Your task to perform on an android device: Open settings Image 0: 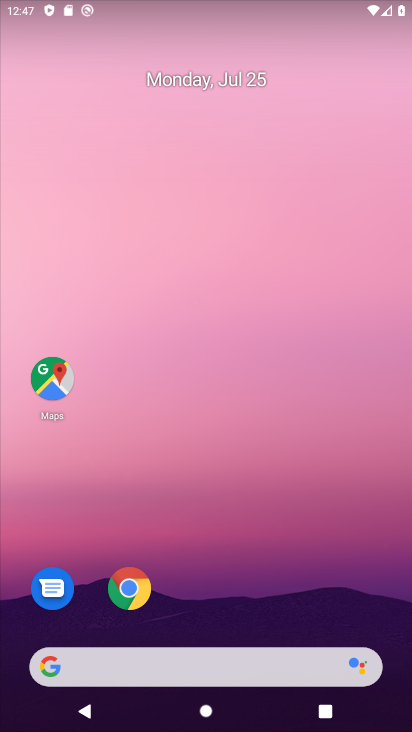
Step 0: drag from (246, 627) to (195, 282)
Your task to perform on an android device: Open settings Image 1: 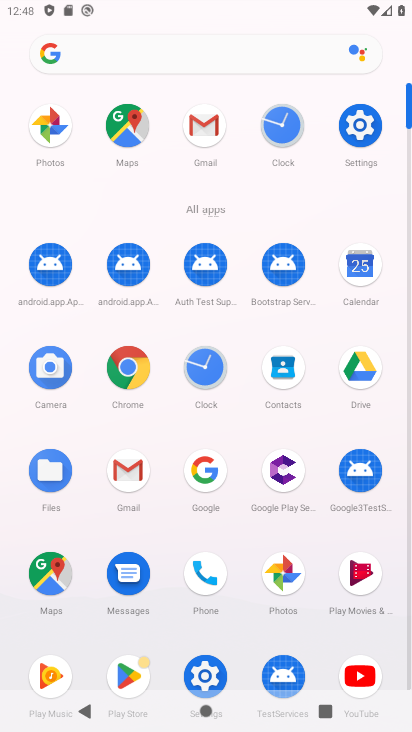
Step 1: click (202, 666)
Your task to perform on an android device: Open settings Image 2: 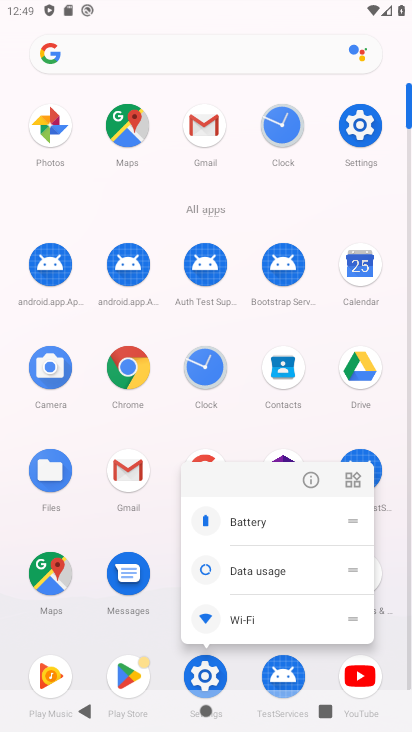
Step 2: click (367, 125)
Your task to perform on an android device: Open settings Image 3: 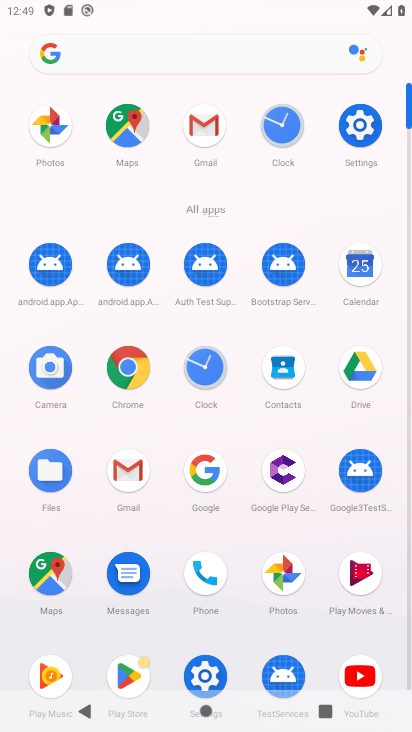
Step 3: click (354, 117)
Your task to perform on an android device: Open settings Image 4: 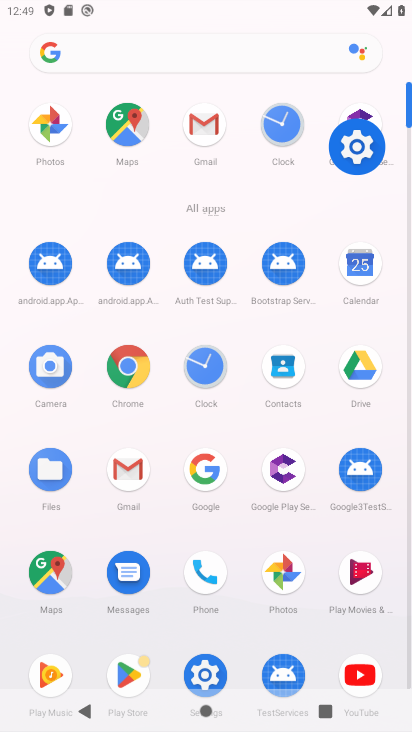
Step 4: click (365, 136)
Your task to perform on an android device: Open settings Image 5: 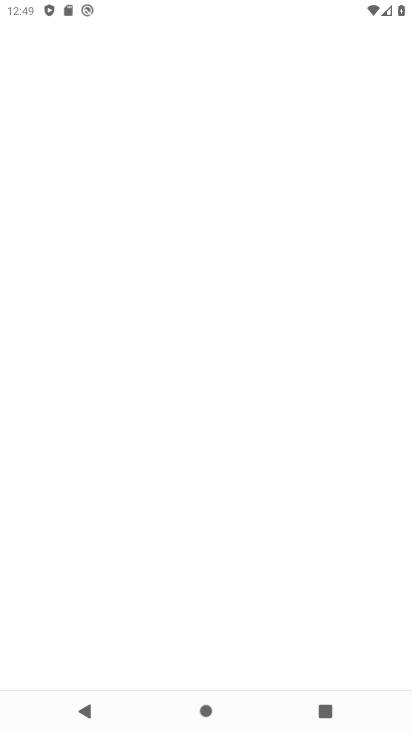
Step 5: click (366, 133)
Your task to perform on an android device: Open settings Image 6: 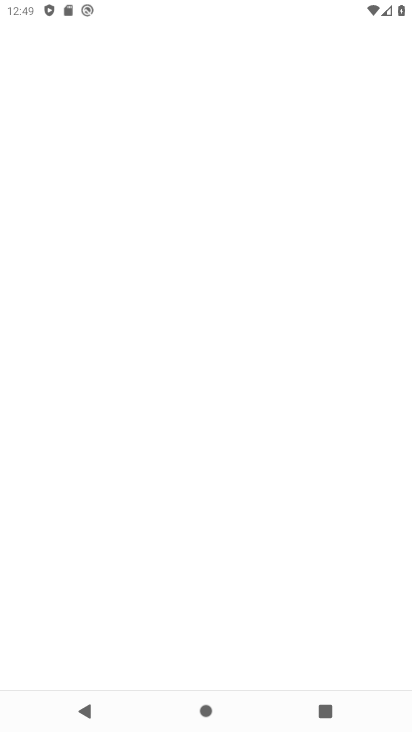
Step 6: click (365, 123)
Your task to perform on an android device: Open settings Image 7: 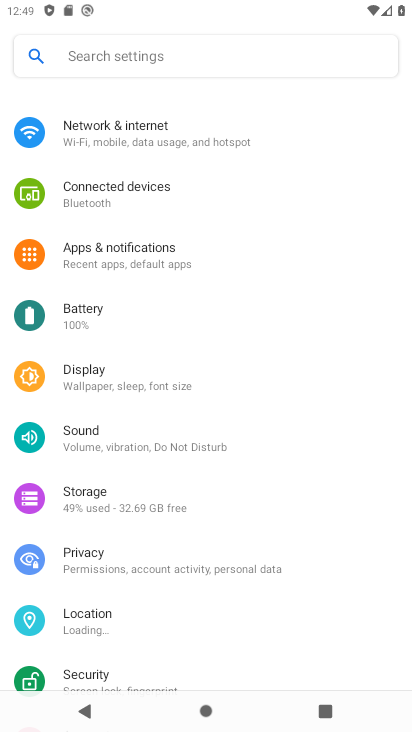
Step 7: click (358, 127)
Your task to perform on an android device: Open settings Image 8: 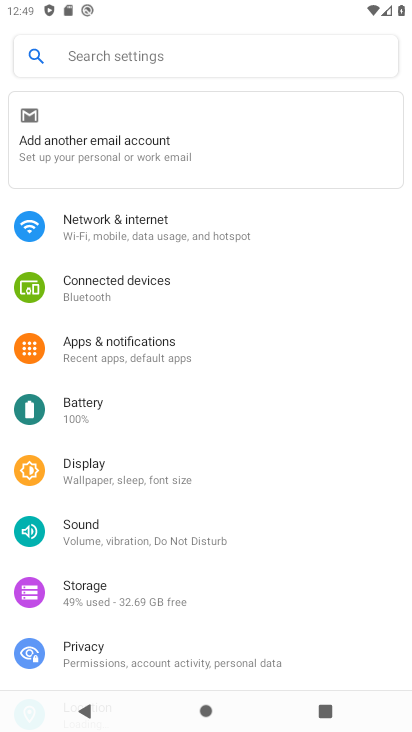
Step 8: click (364, 119)
Your task to perform on an android device: Open settings Image 9: 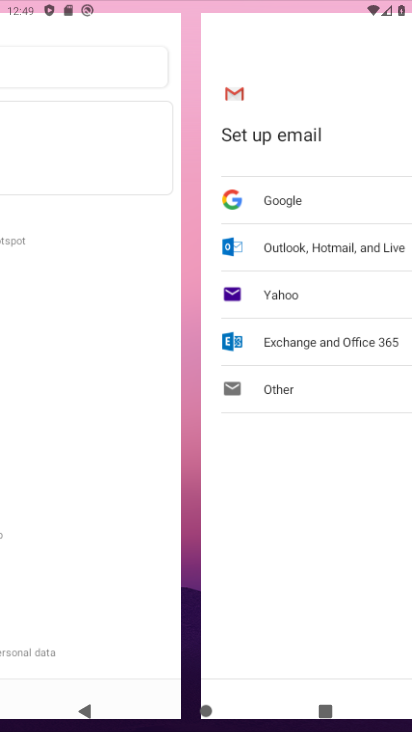
Step 9: click (370, 126)
Your task to perform on an android device: Open settings Image 10: 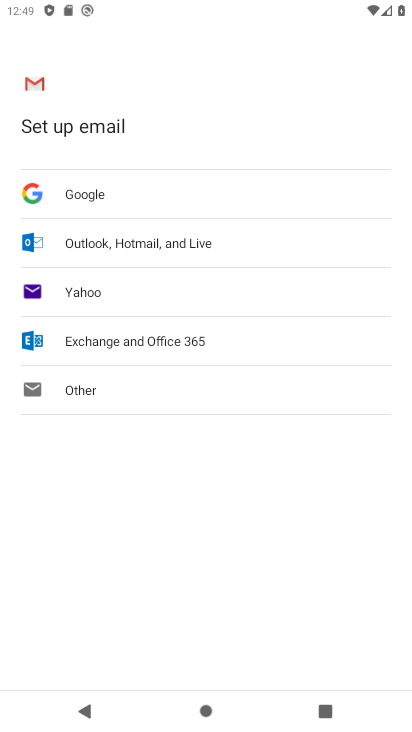
Step 10: click (349, 131)
Your task to perform on an android device: Open settings Image 11: 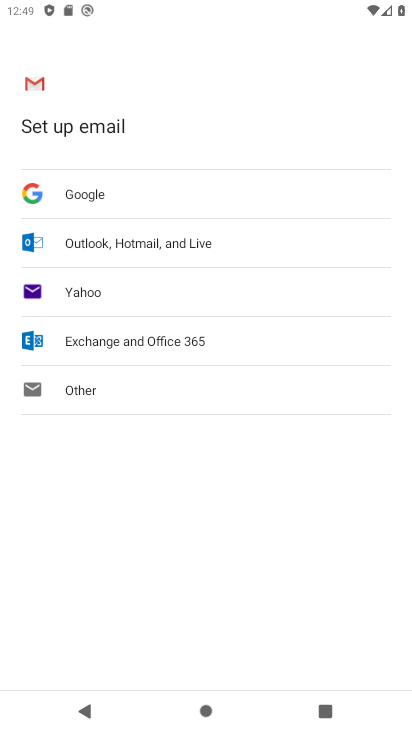
Step 11: task complete